Your task to perform on an android device: toggle javascript in the chrome app Image 0: 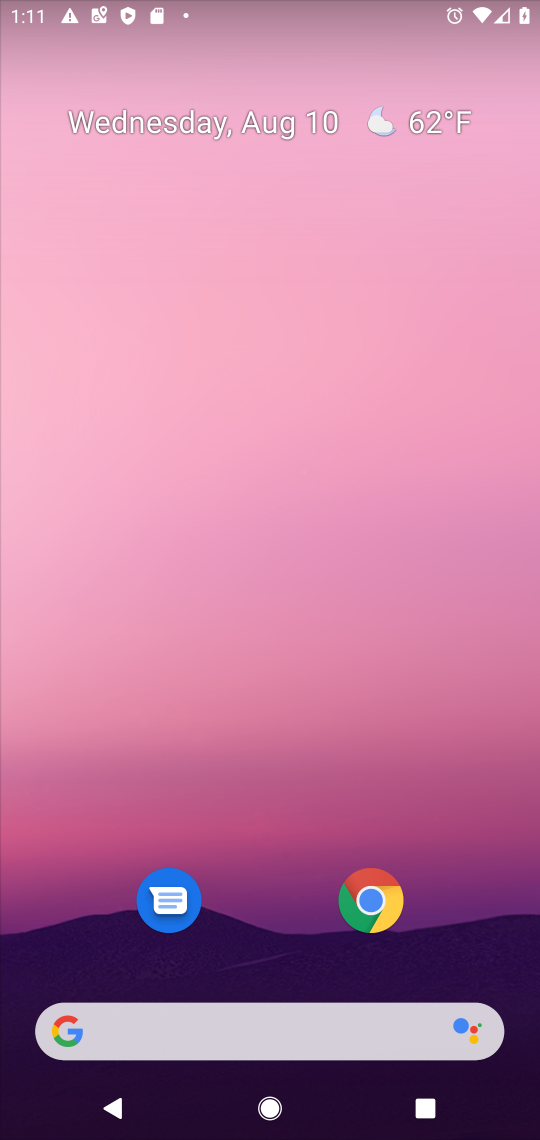
Step 0: click (379, 901)
Your task to perform on an android device: toggle javascript in the chrome app Image 1: 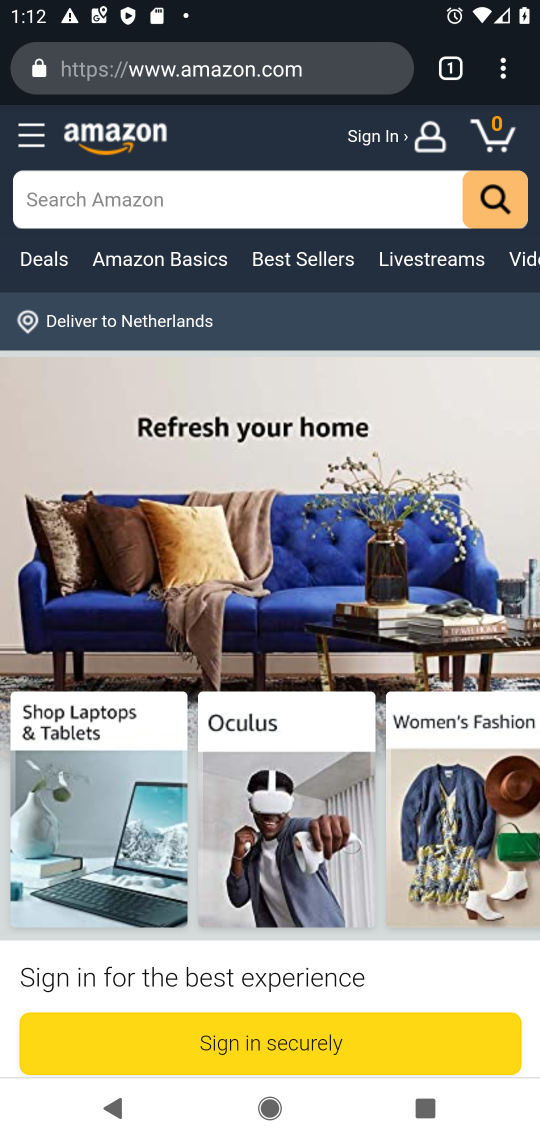
Step 1: click (505, 78)
Your task to perform on an android device: toggle javascript in the chrome app Image 2: 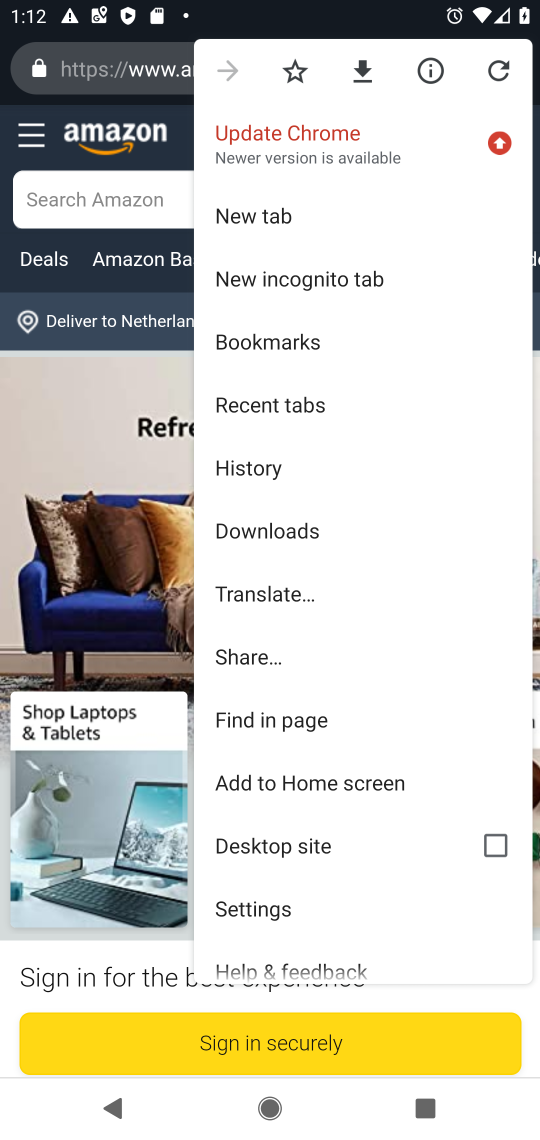
Step 2: click (301, 909)
Your task to perform on an android device: toggle javascript in the chrome app Image 3: 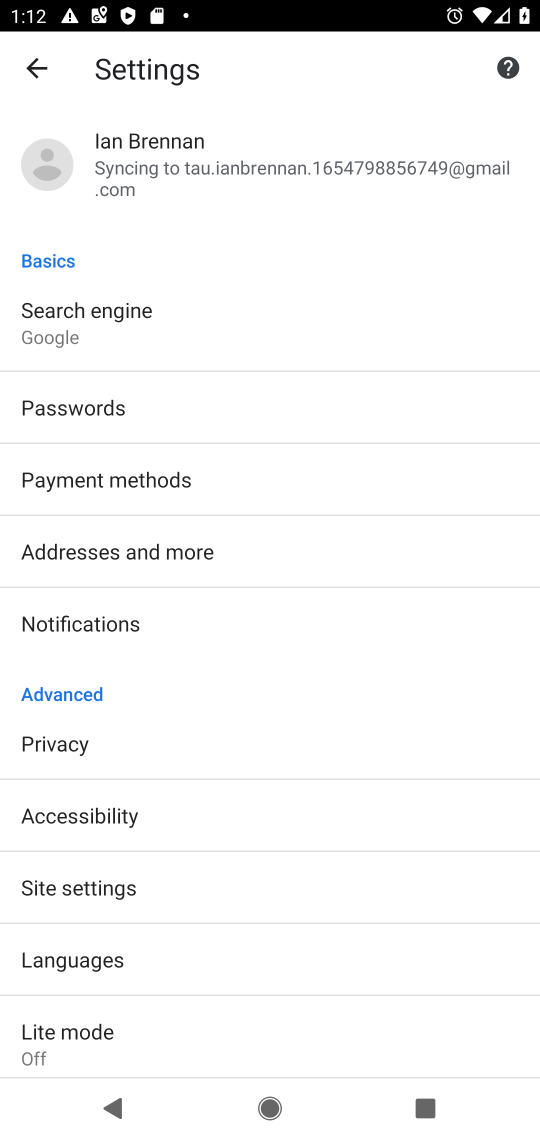
Step 3: click (213, 881)
Your task to perform on an android device: toggle javascript in the chrome app Image 4: 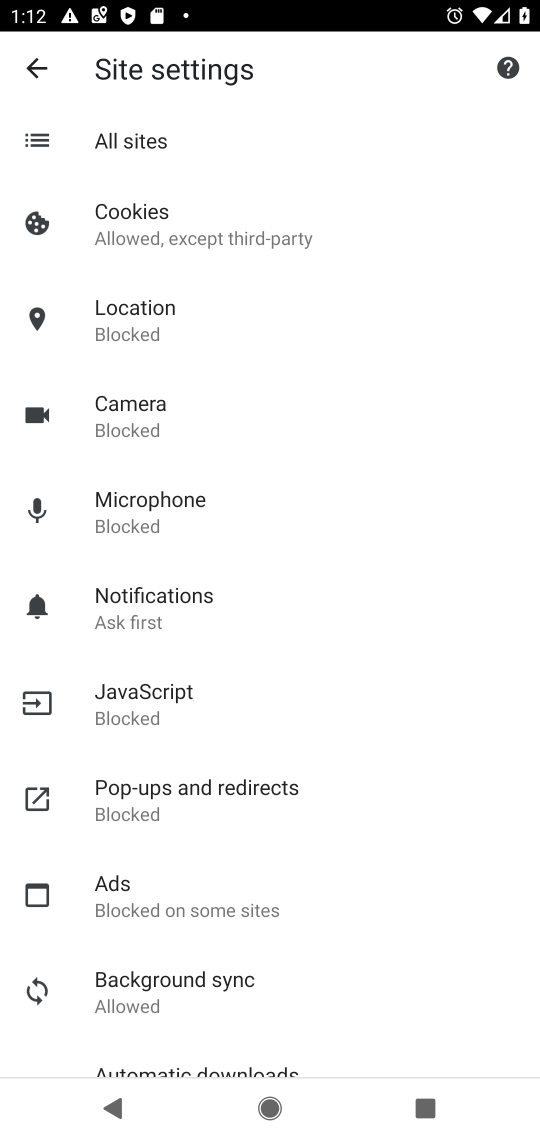
Step 4: click (200, 700)
Your task to perform on an android device: toggle javascript in the chrome app Image 5: 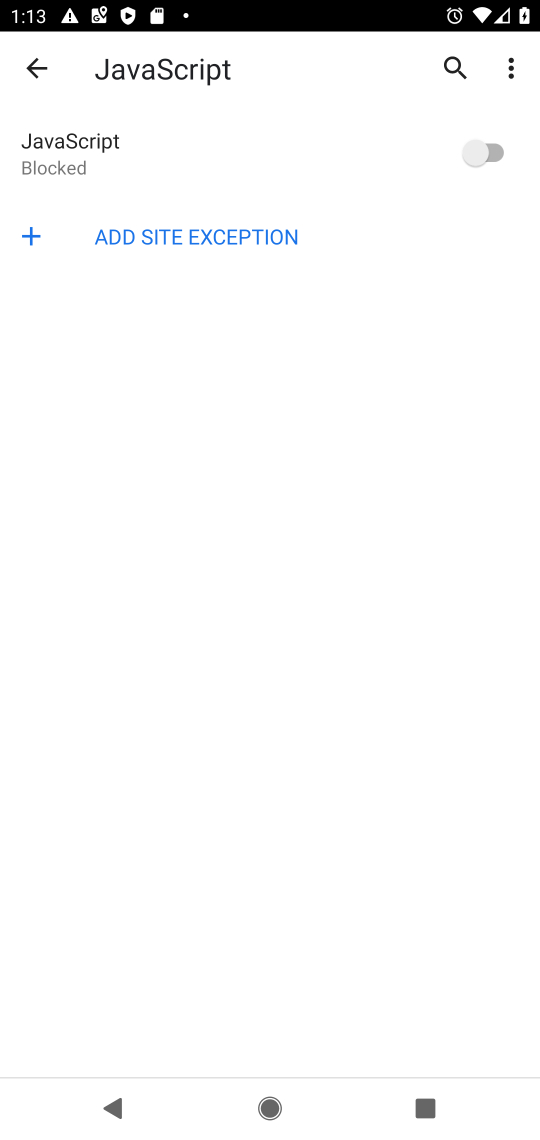
Step 5: click (492, 152)
Your task to perform on an android device: toggle javascript in the chrome app Image 6: 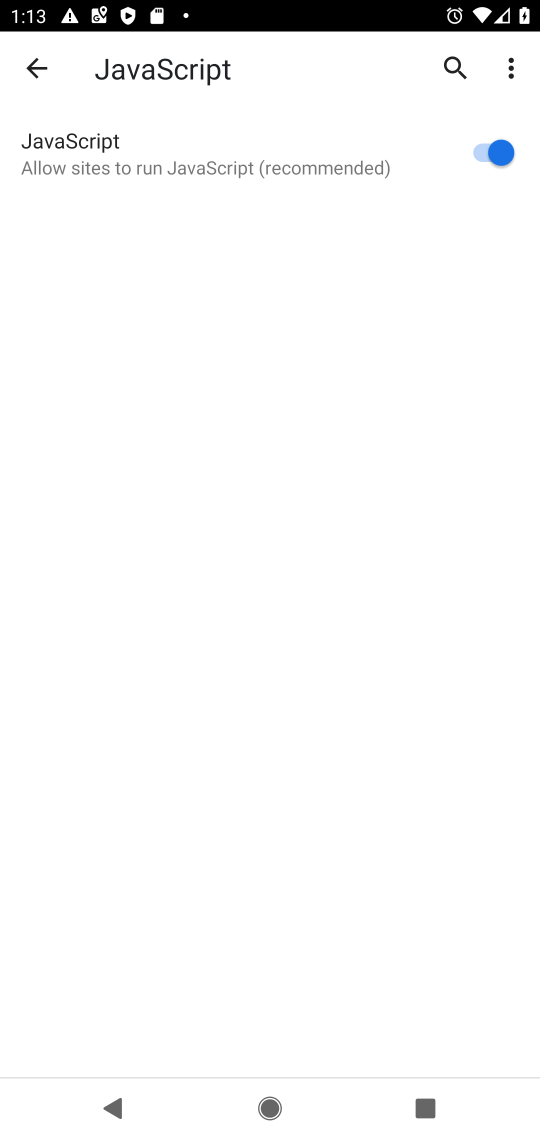
Step 6: task complete